Your task to perform on an android device: Open Google Maps and go to "Timeline" Image 0: 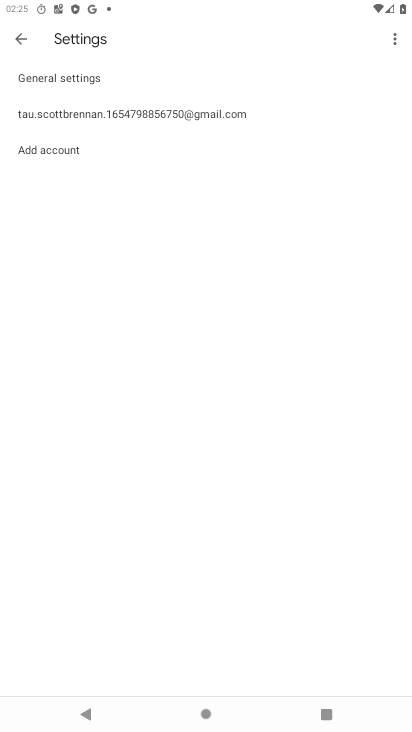
Step 0: drag from (192, 377) to (200, 319)
Your task to perform on an android device: Open Google Maps and go to "Timeline" Image 1: 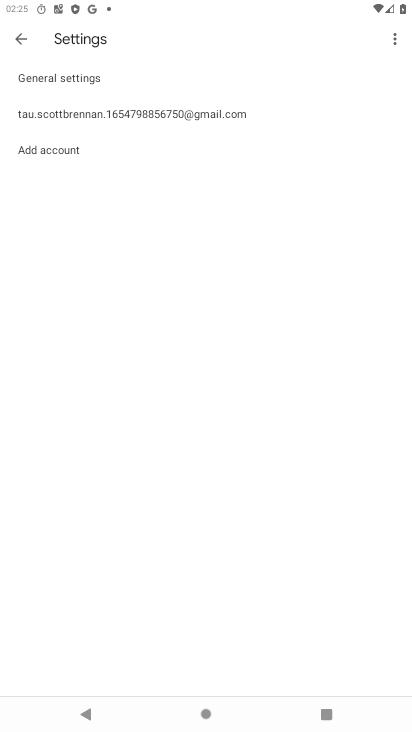
Step 1: press home button
Your task to perform on an android device: Open Google Maps and go to "Timeline" Image 2: 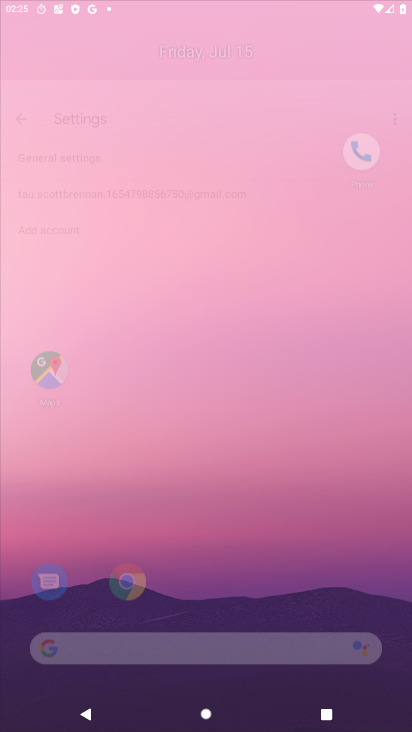
Step 2: drag from (205, 465) to (306, 0)
Your task to perform on an android device: Open Google Maps and go to "Timeline" Image 3: 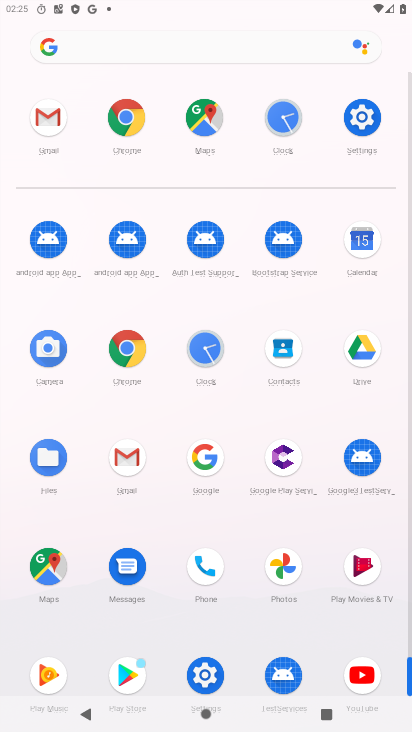
Step 3: click (43, 561)
Your task to perform on an android device: Open Google Maps and go to "Timeline" Image 4: 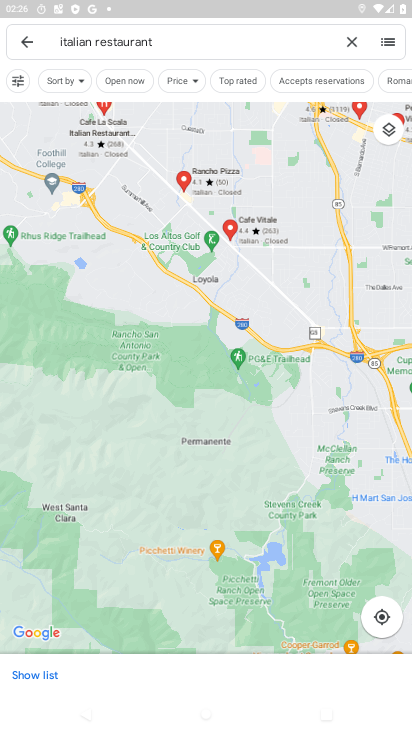
Step 4: click (28, 40)
Your task to perform on an android device: Open Google Maps and go to "Timeline" Image 5: 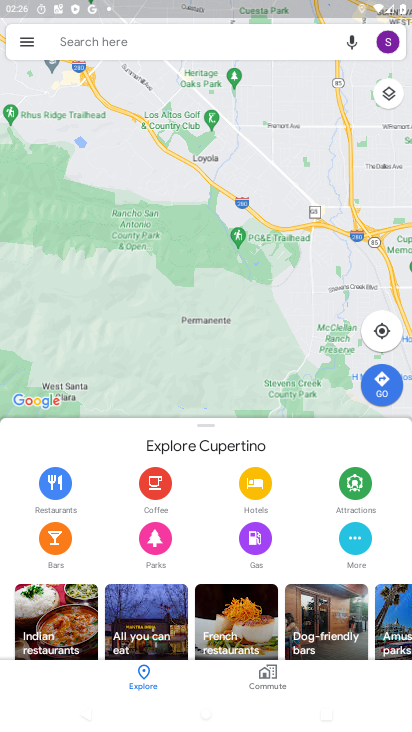
Step 5: click (38, 39)
Your task to perform on an android device: Open Google Maps and go to "Timeline" Image 6: 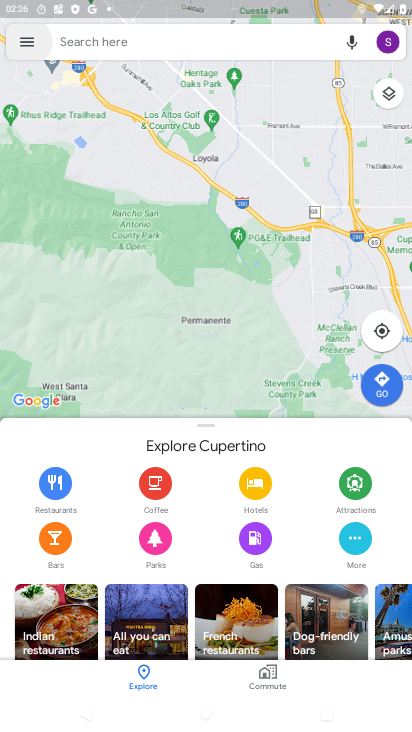
Step 6: click (31, 34)
Your task to perform on an android device: Open Google Maps and go to "Timeline" Image 7: 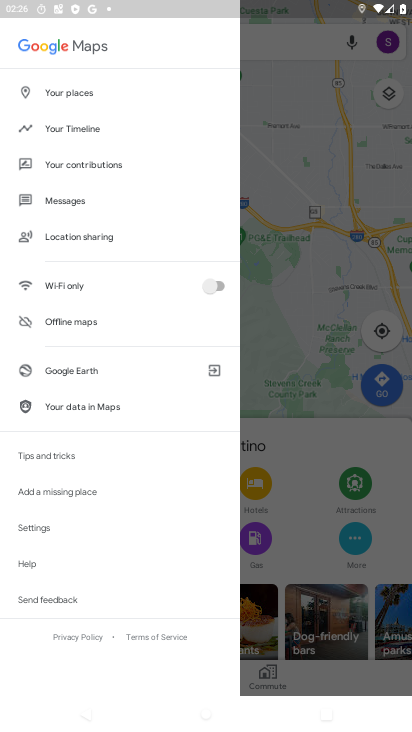
Step 7: click (89, 133)
Your task to perform on an android device: Open Google Maps and go to "Timeline" Image 8: 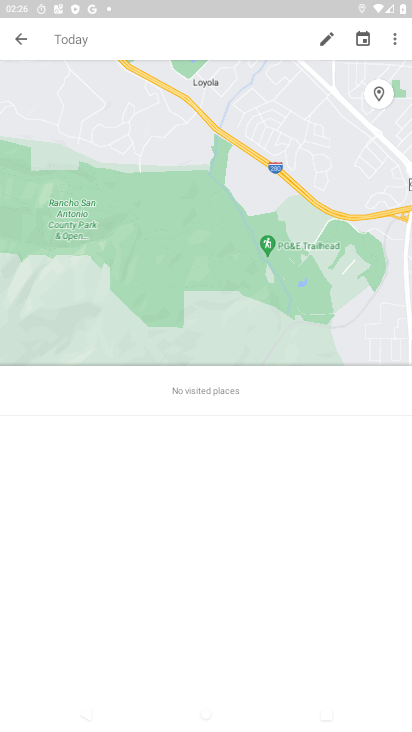
Step 8: task complete